Your task to perform on an android device: change your default location settings in chrome Image 0: 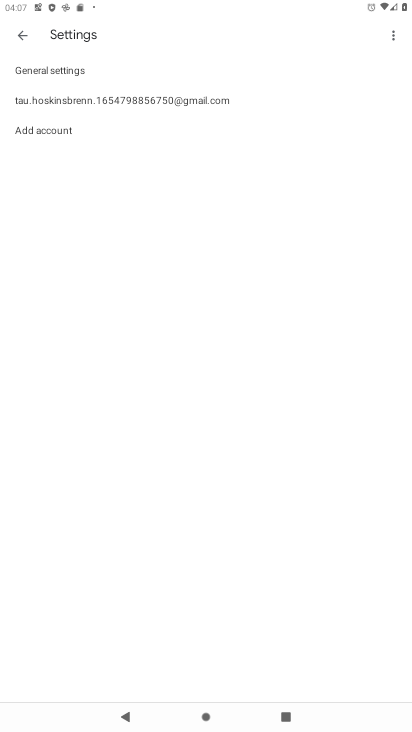
Step 0: press home button
Your task to perform on an android device: change your default location settings in chrome Image 1: 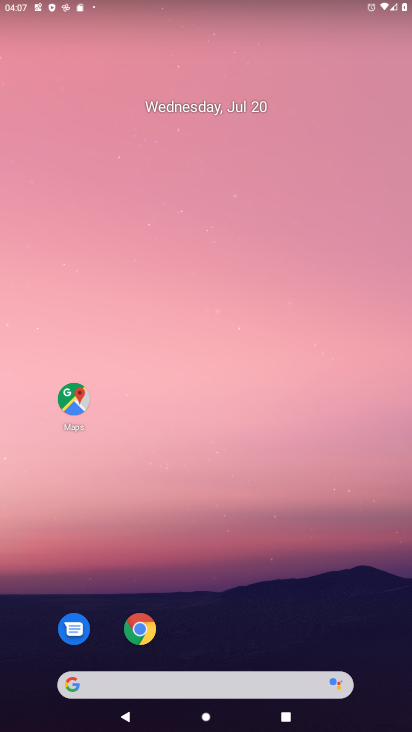
Step 1: click (138, 629)
Your task to perform on an android device: change your default location settings in chrome Image 2: 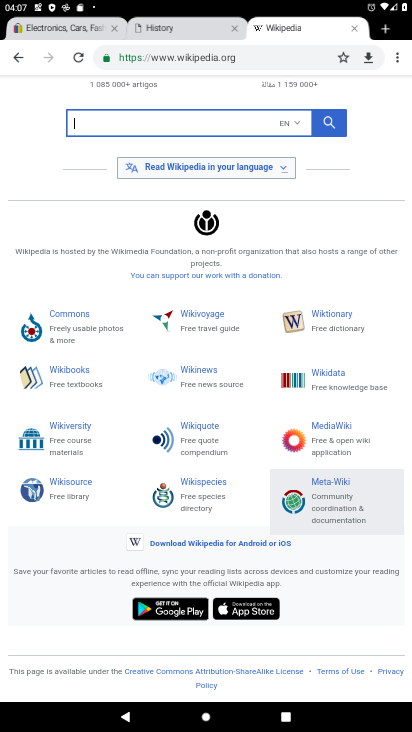
Step 2: click (396, 59)
Your task to perform on an android device: change your default location settings in chrome Image 3: 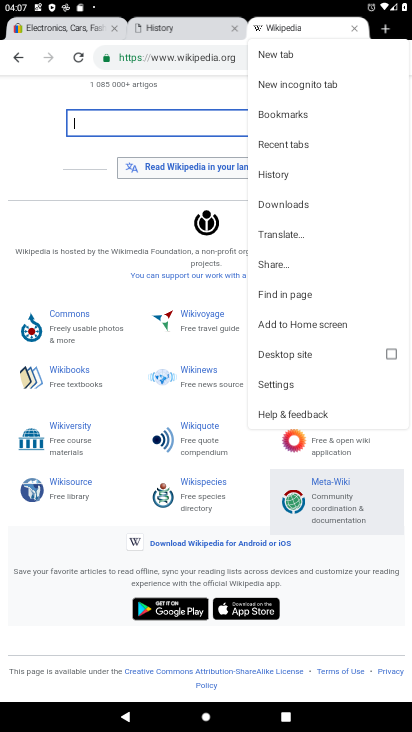
Step 3: click (279, 385)
Your task to perform on an android device: change your default location settings in chrome Image 4: 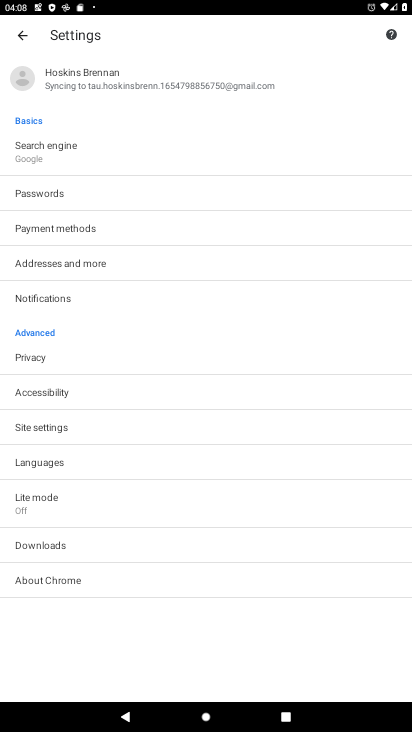
Step 4: click (39, 434)
Your task to perform on an android device: change your default location settings in chrome Image 5: 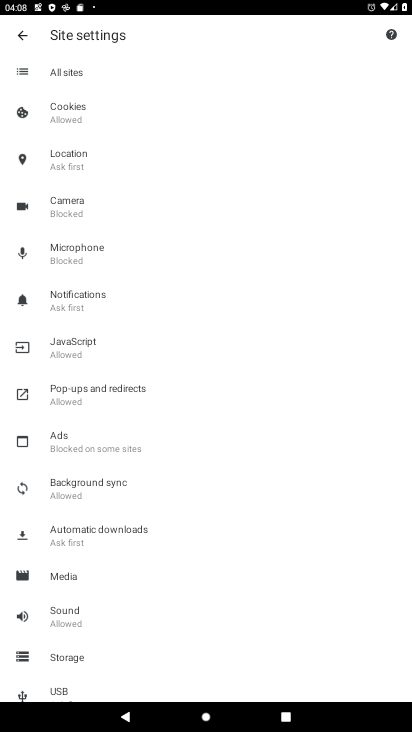
Step 5: click (65, 146)
Your task to perform on an android device: change your default location settings in chrome Image 6: 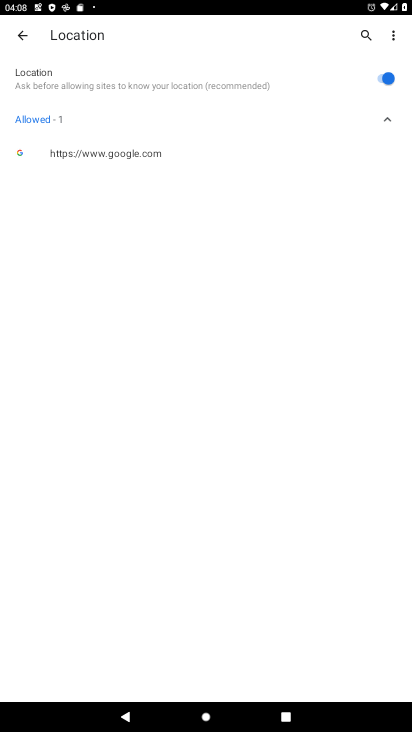
Step 6: click (375, 75)
Your task to perform on an android device: change your default location settings in chrome Image 7: 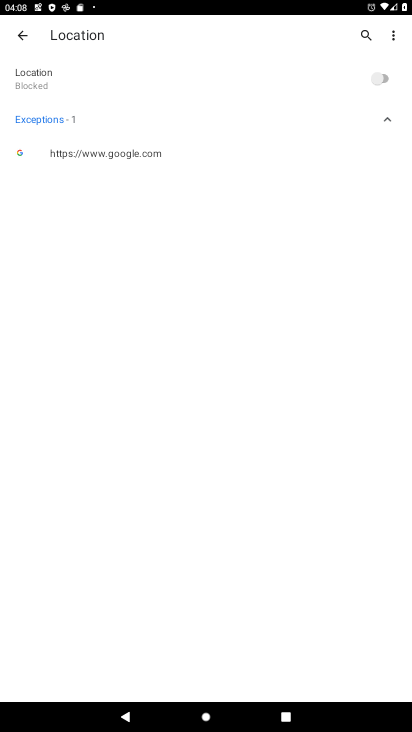
Step 7: task complete